Your task to perform on an android device: Open Android settings Image 0: 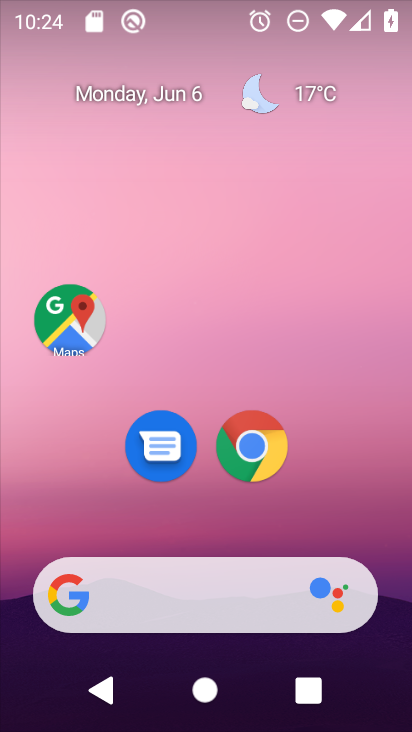
Step 0: drag from (205, 506) to (216, 114)
Your task to perform on an android device: Open Android settings Image 1: 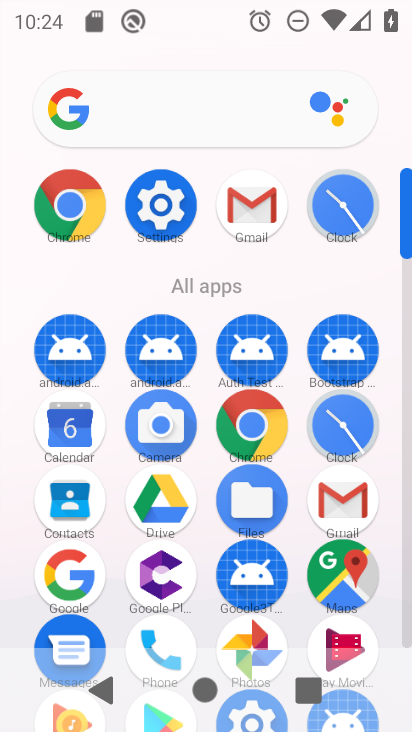
Step 1: click (159, 181)
Your task to perform on an android device: Open Android settings Image 2: 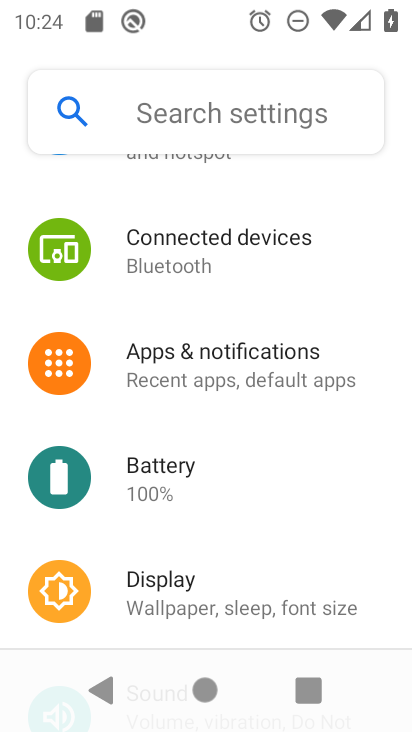
Step 2: task complete